Your task to perform on an android device: Show me popular games on the Play Store Image 0: 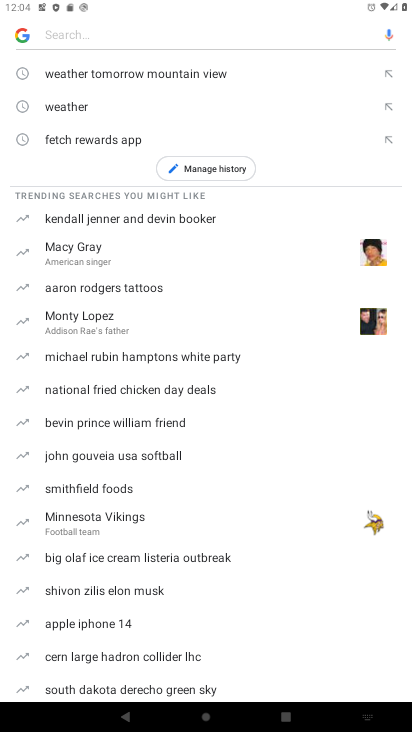
Step 0: press home button
Your task to perform on an android device: Show me popular games on the Play Store Image 1: 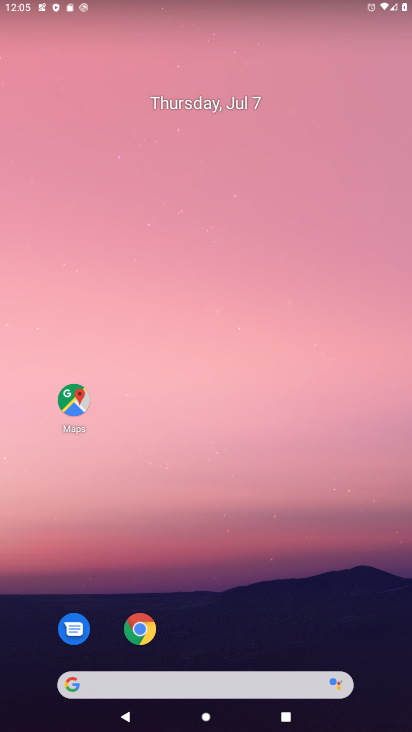
Step 1: drag from (217, 555) to (224, 165)
Your task to perform on an android device: Show me popular games on the Play Store Image 2: 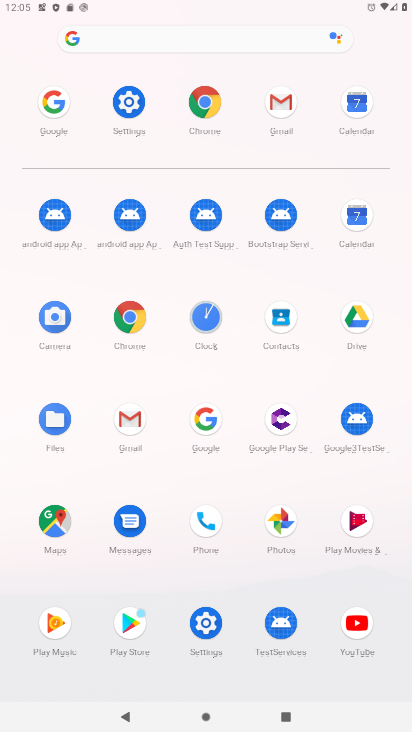
Step 2: click (139, 625)
Your task to perform on an android device: Show me popular games on the Play Store Image 3: 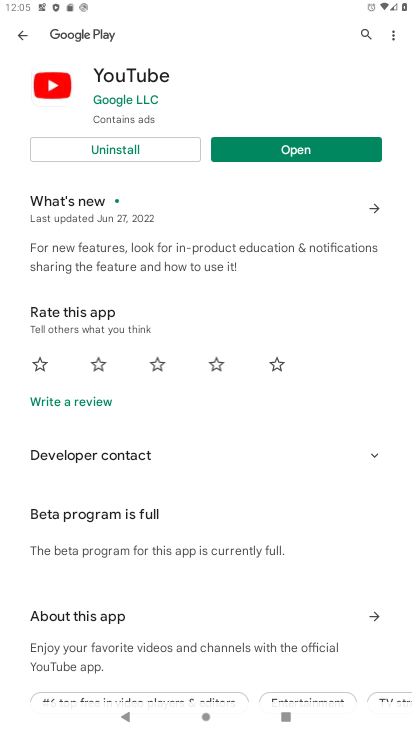
Step 3: click (14, 30)
Your task to perform on an android device: Show me popular games on the Play Store Image 4: 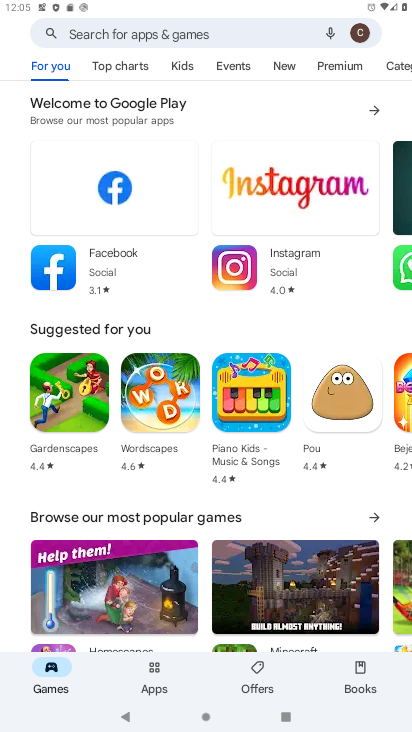
Step 4: click (62, 667)
Your task to perform on an android device: Show me popular games on the Play Store Image 5: 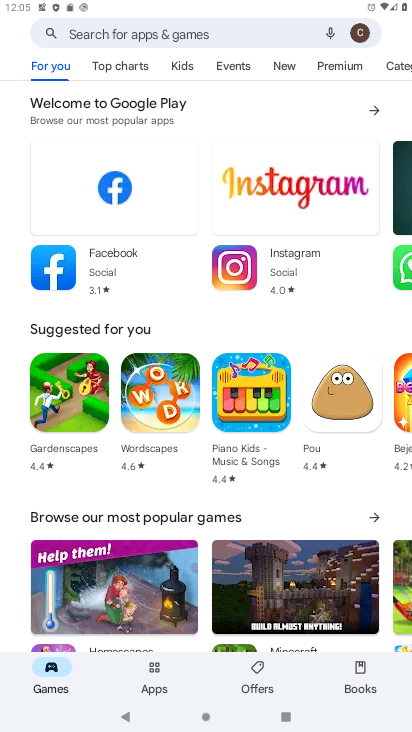
Step 5: click (124, 72)
Your task to perform on an android device: Show me popular games on the Play Store Image 6: 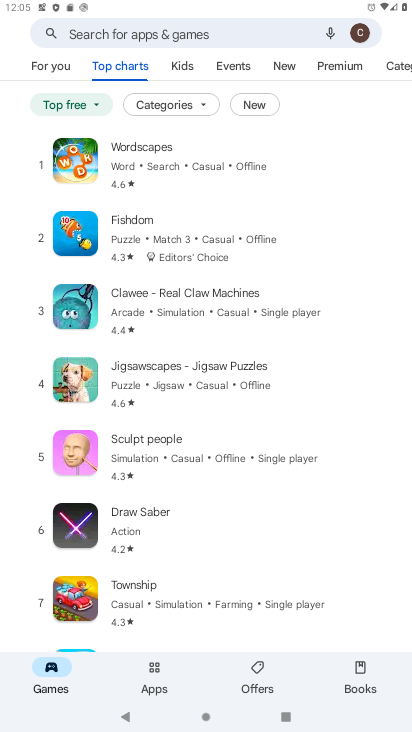
Step 6: task complete